Your task to perform on an android device: open a bookmark in the chrome app Image 0: 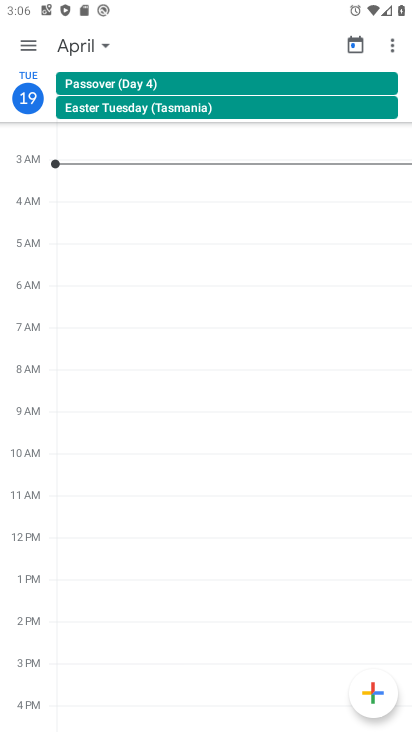
Step 0: press home button
Your task to perform on an android device: open a bookmark in the chrome app Image 1: 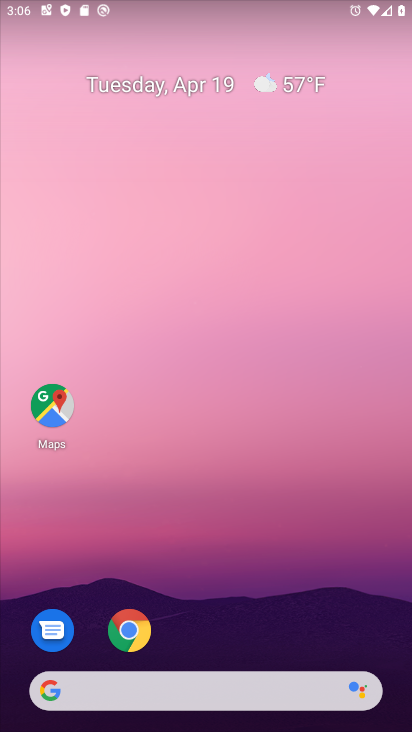
Step 1: click (126, 638)
Your task to perform on an android device: open a bookmark in the chrome app Image 2: 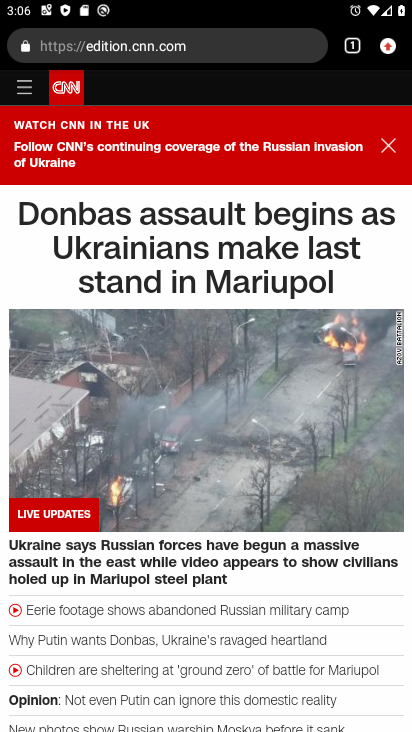
Step 2: click (388, 45)
Your task to perform on an android device: open a bookmark in the chrome app Image 3: 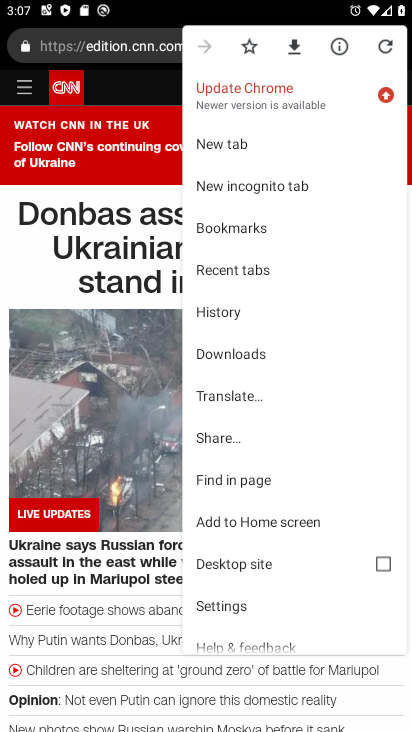
Step 3: click (219, 232)
Your task to perform on an android device: open a bookmark in the chrome app Image 4: 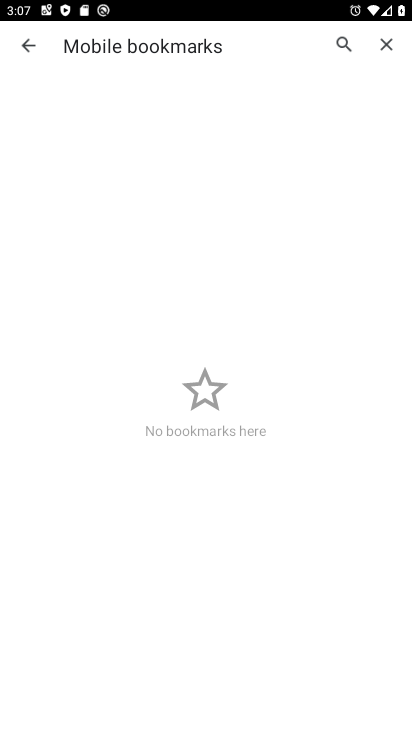
Step 4: task complete